Your task to perform on an android device: check the backup settings in the google photos Image 0: 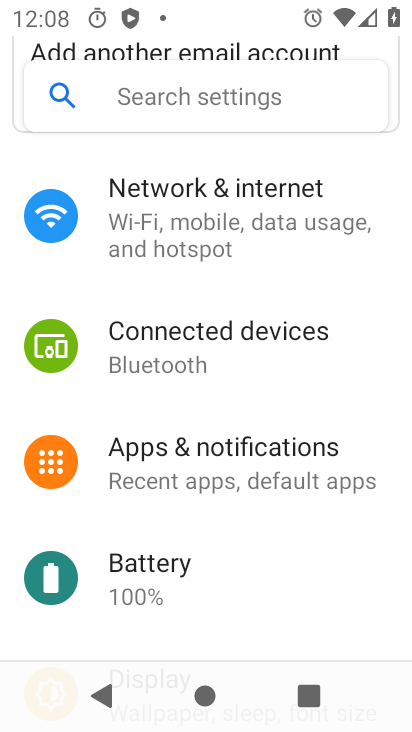
Step 0: press back button
Your task to perform on an android device: check the backup settings in the google photos Image 1: 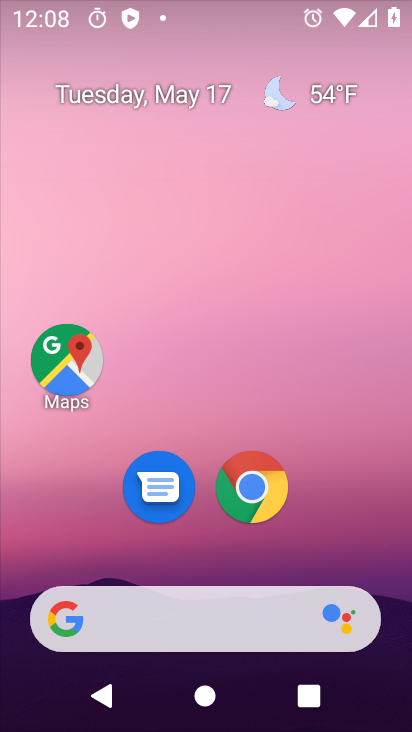
Step 1: drag from (167, 592) to (272, 107)
Your task to perform on an android device: check the backup settings in the google photos Image 2: 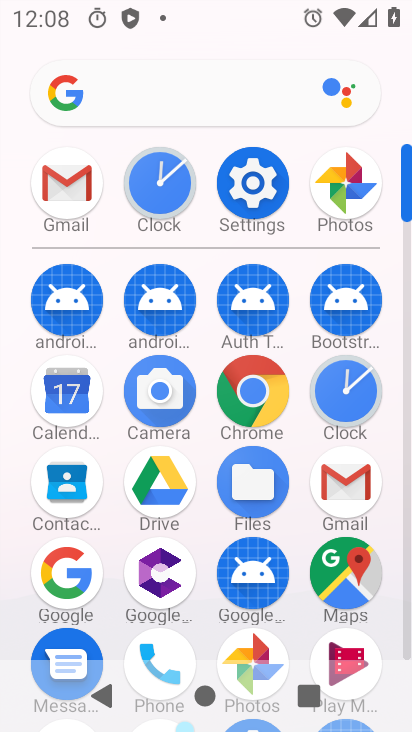
Step 2: drag from (233, 558) to (259, 299)
Your task to perform on an android device: check the backup settings in the google photos Image 3: 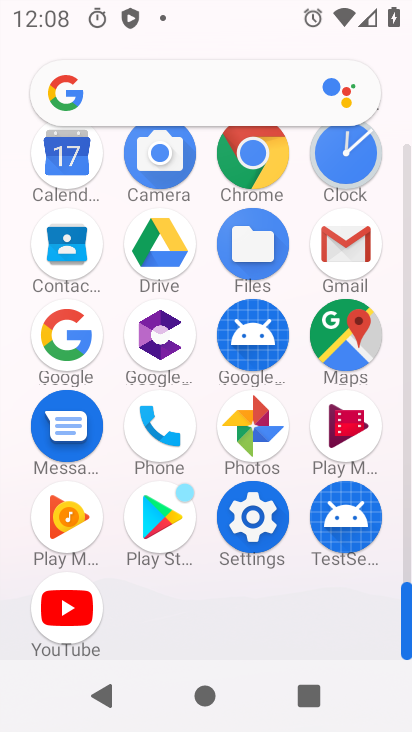
Step 3: click (255, 444)
Your task to perform on an android device: check the backup settings in the google photos Image 4: 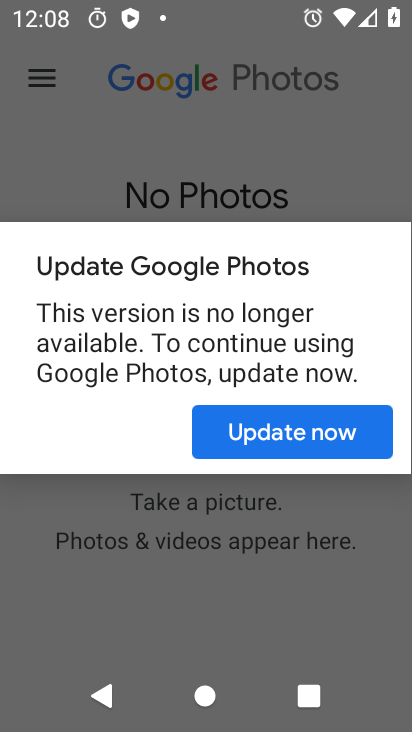
Step 4: click (267, 430)
Your task to perform on an android device: check the backup settings in the google photos Image 5: 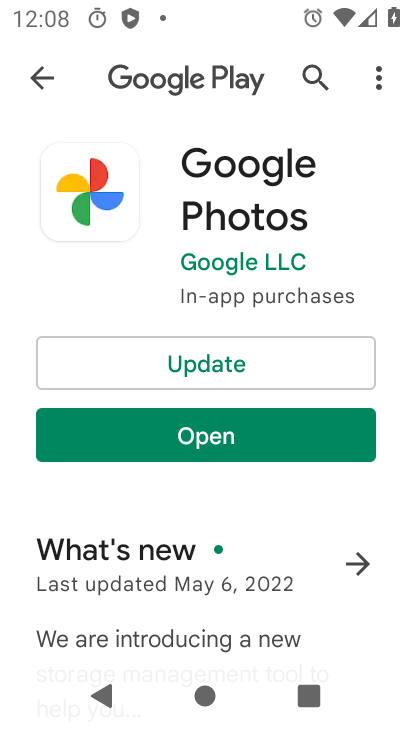
Step 5: click (240, 438)
Your task to perform on an android device: check the backup settings in the google photos Image 6: 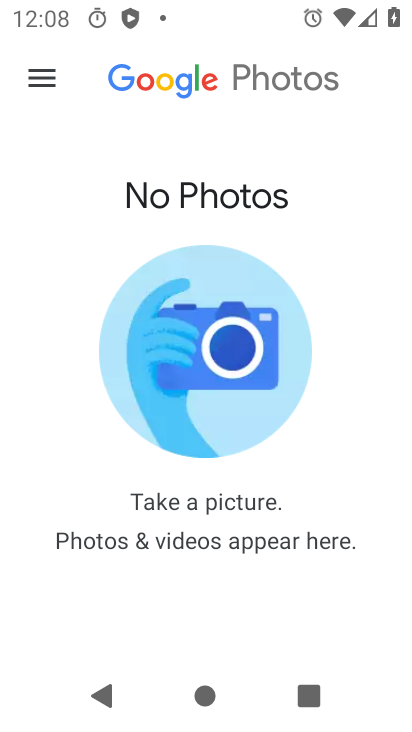
Step 6: click (45, 79)
Your task to perform on an android device: check the backup settings in the google photos Image 7: 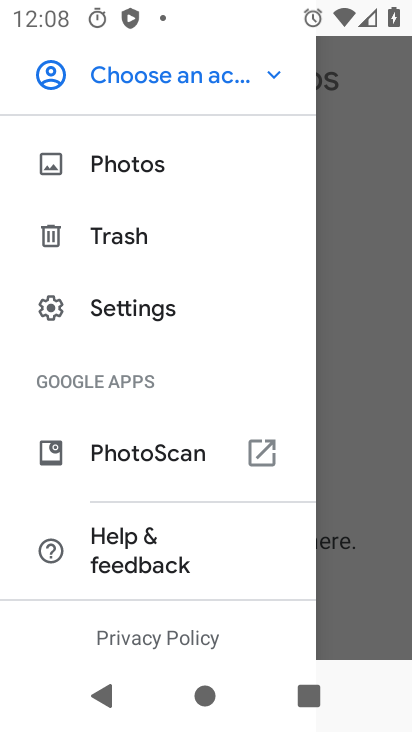
Step 7: click (137, 328)
Your task to perform on an android device: check the backup settings in the google photos Image 8: 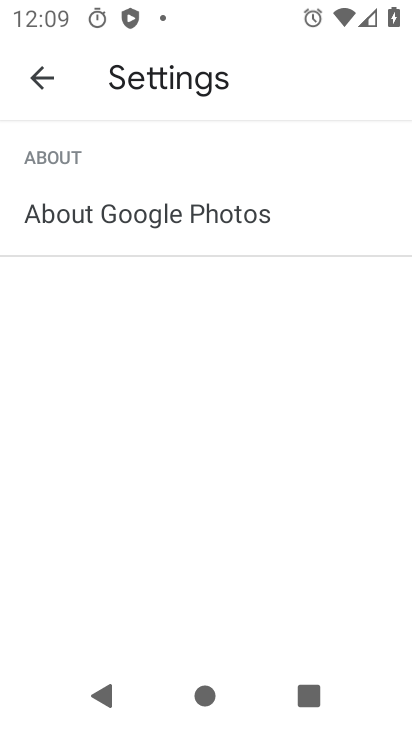
Step 8: task complete